Your task to perform on an android device: Search for logitech g502 on walmart.com, select the first entry, add it to the cart, then select checkout. Image 0: 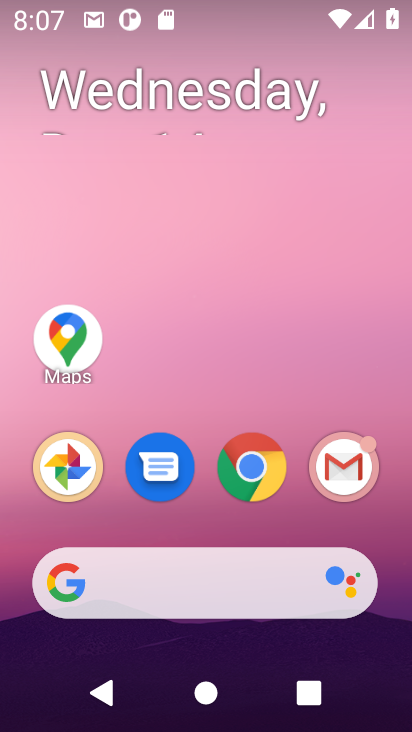
Step 0: click (246, 473)
Your task to perform on an android device: Search for logitech g502 on walmart.com, select the first entry, add it to the cart, then select checkout. Image 1: 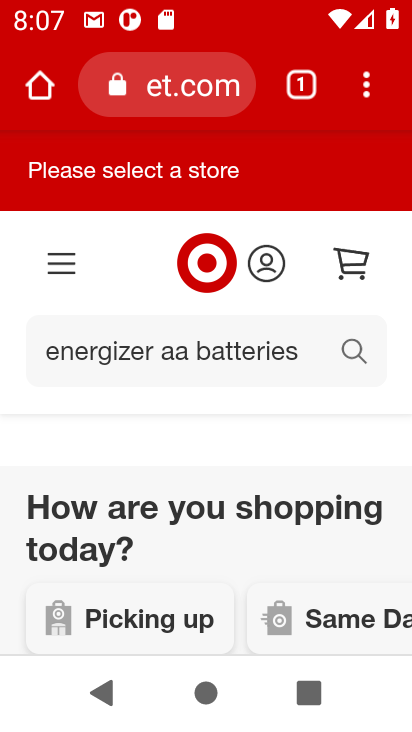
Step 1: click (181, 80)
Your task to perform on an android device: Search for logitech g502 on walmart.com, select the first entry, add it to the cart, then select checkout. Image 2: 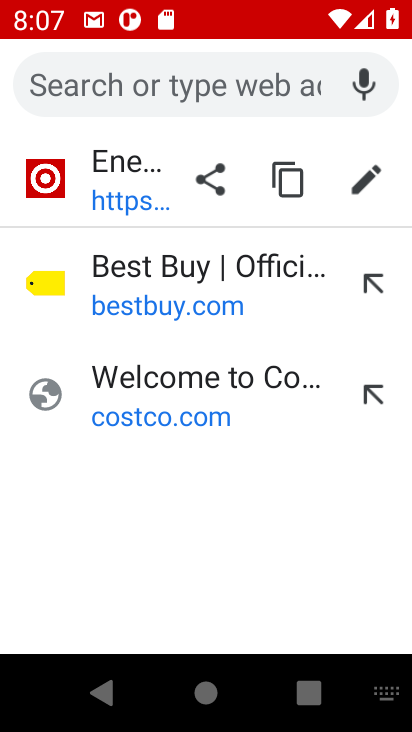
Step 2: type "walmart"
Your task to perform on an android device: Search for logitech g502 on walmart.com, select the first entry, add it to the cart, then select checkout. Image 3: 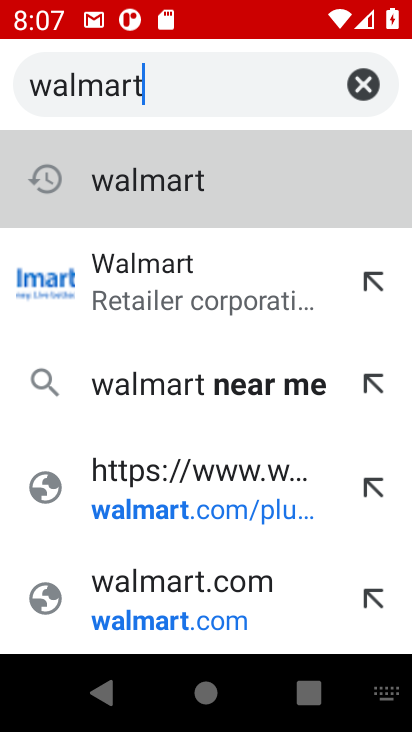
Step 3: click (144, 271)
Your task to perform on an android device: Search for logitech g502 on walmart.com, select the first entry, add it to the cart, then select checkout. Image 4: 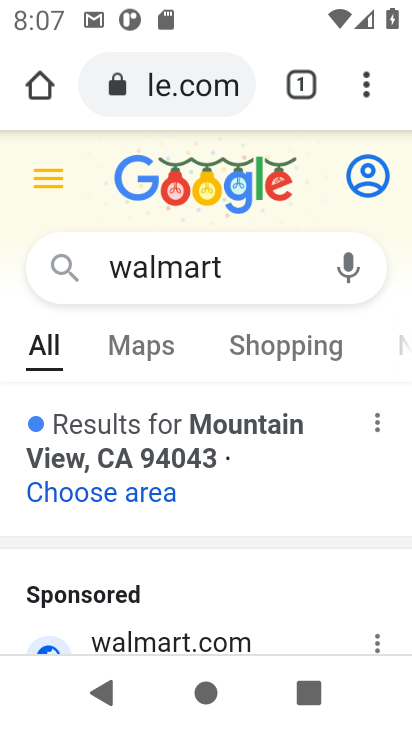
Step 4: click (146, 638)
Your task to perform on an android device: Search for logitech g502 on walmart.com, select the first entry, add it to the cart, then select checkout. Image 5: 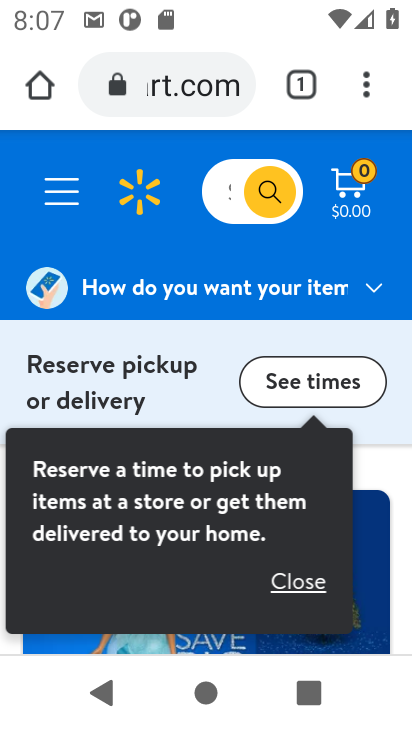
Step 5: click (289, 586)
Your task to perform on an android device: Search for logitech g502 on walmart.com, select the first entry, add it to the cart, then select checkout. Image 6: 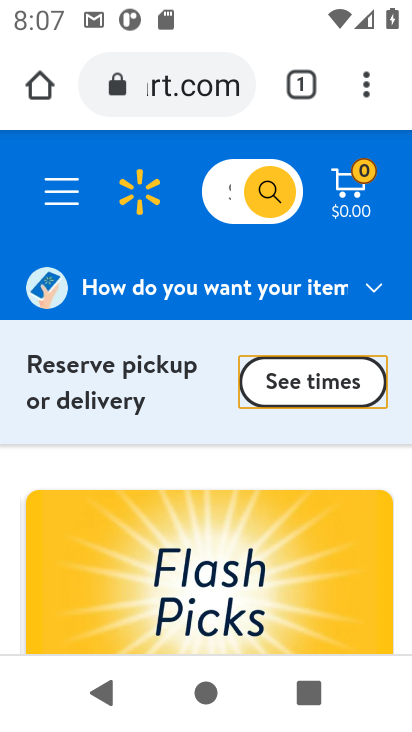
Step 6: drag from (289, 586) to (309, 159)
Your task to perform on an android device: Search for logitech g502 on walmart.com, select the first entry, add it to the cart, then select checkout. Image 7: 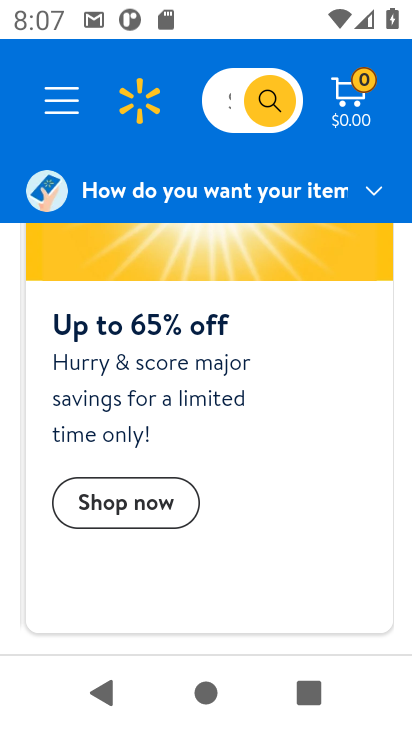
Step 7: click (233, 109)
Your task to perform on an android device: Search for logitech g502 on walmart.com, select the first entry, add it to the cart, then select checkout. Image 8: 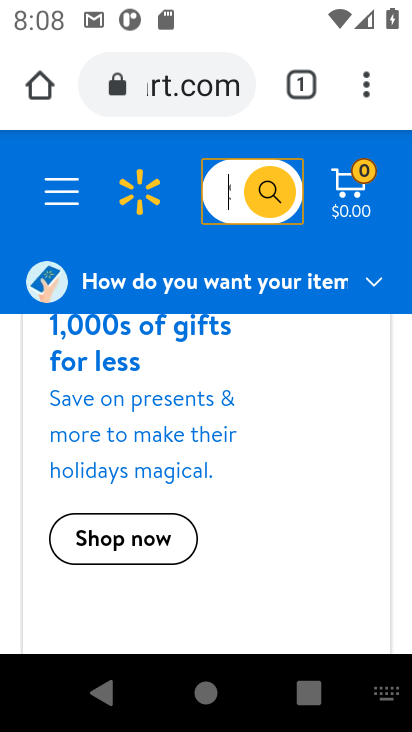
Step 8: type "logitech g pro"
Your task to perform on an android device: Search for logitech g502 on walmart.com, select the first entry, add it to the cart, then select checkout. Image 9: 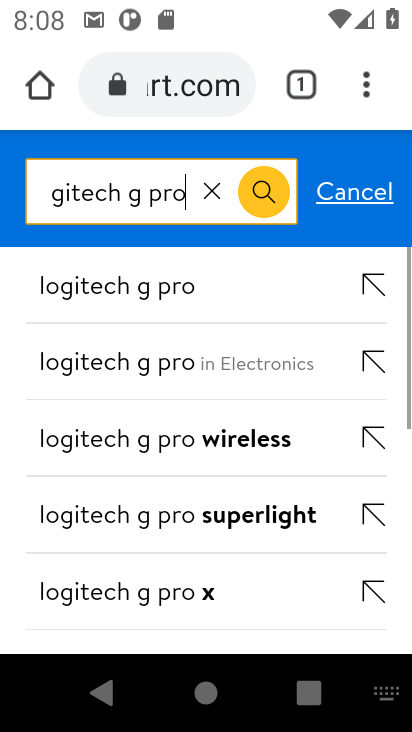
Step 9: click (109, 304)
Your task to perform on an android device: Search for logitech g502 on walmart.com, select the first entry, add it to the cart, then select checkout. Image 10: 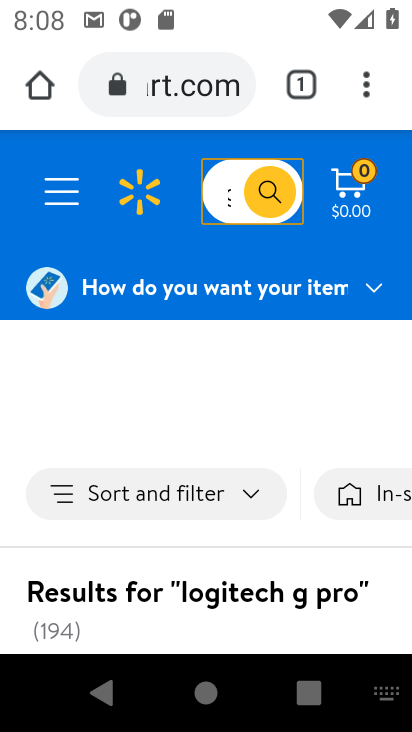
Step 10: drag from (179, 559) to (211, 133)
Your task to perform on an android device: Search for logitech g502 on walmart.com, select the first entry, add it to the cart, then select checkout. Image 11: 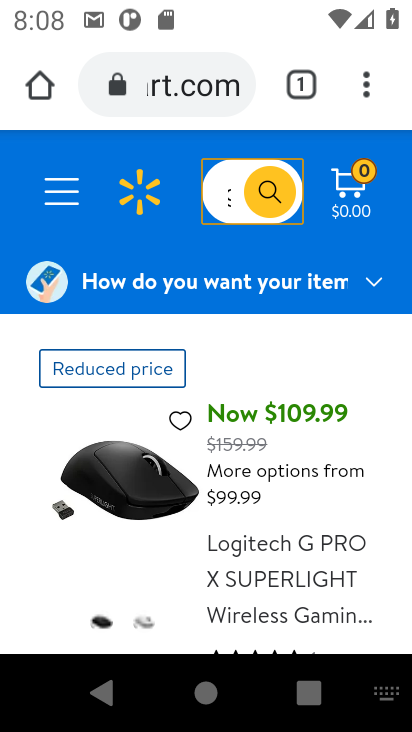
Step 11: click (255, 546)
Your task to perform on an android device: Search for logitech g502 on walmart.com, select the first entry, add it to the cart, then select checkout. Image 12: 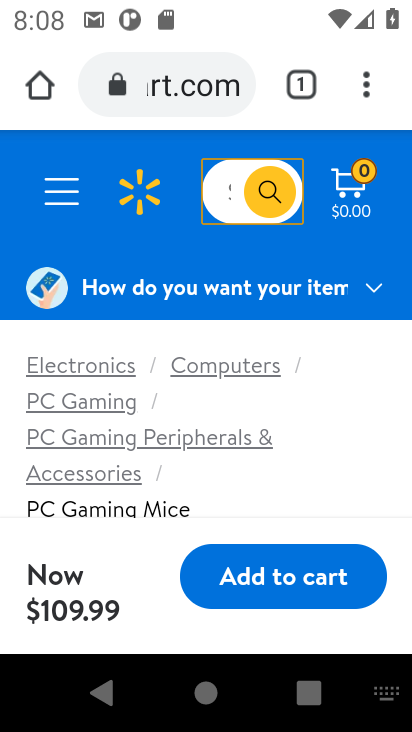
Step 12: click (229, 588)
Your task to perform on an android device: Search for logitech g502 on walmart.com, select the first entry, add it to the cart, then select checkout. Image 13: 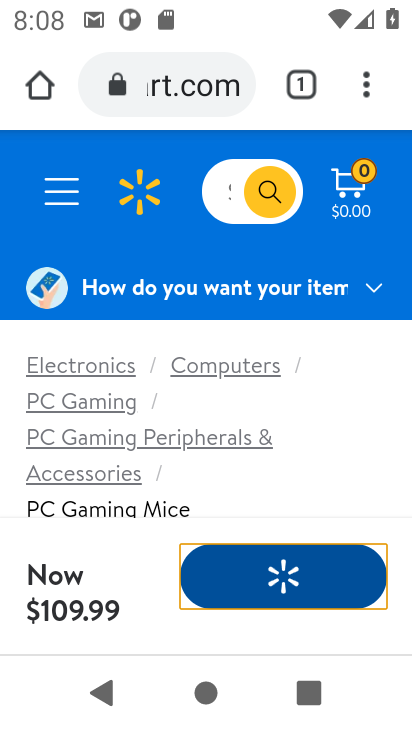
Step 13: task complete